Your task to perform on an android device: What's on my calendar today? Image 0: 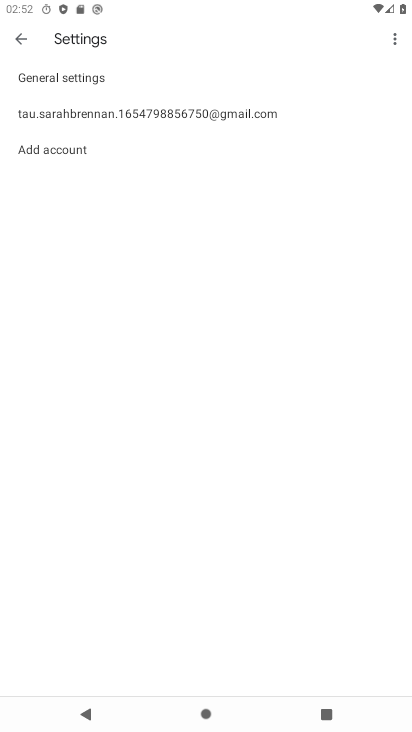
Step 0: press home button
Your task to perform on an android device: What's on my calendar today? Image 1: 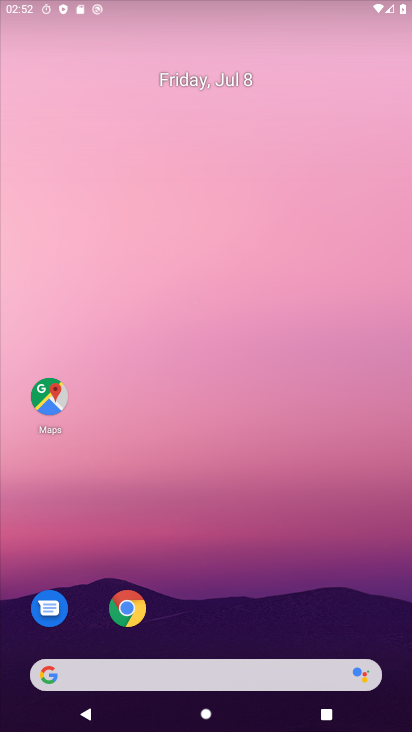
Step 1: drag from (256, 566) to (273, 100)
Your task to perform on an android device: What's on my calendar today? Image 2: 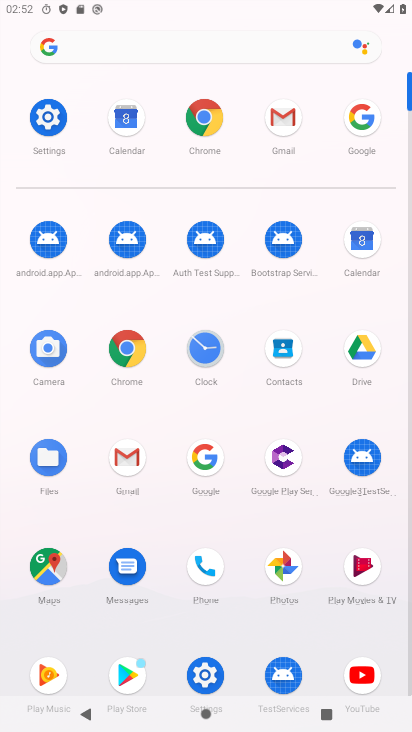
Step 2: click (364, 246)
Your task to perform on an android device: What's on my calendar today? Image 3: 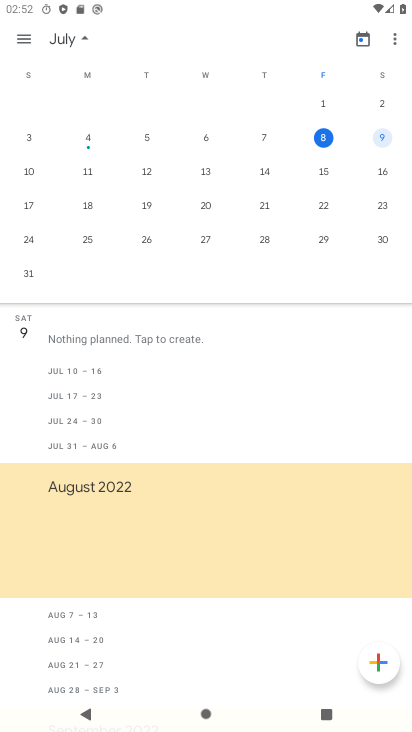
Step 3: click (321, 134)
Your task to perform on an android device: What's on my calendar today? Image 4: 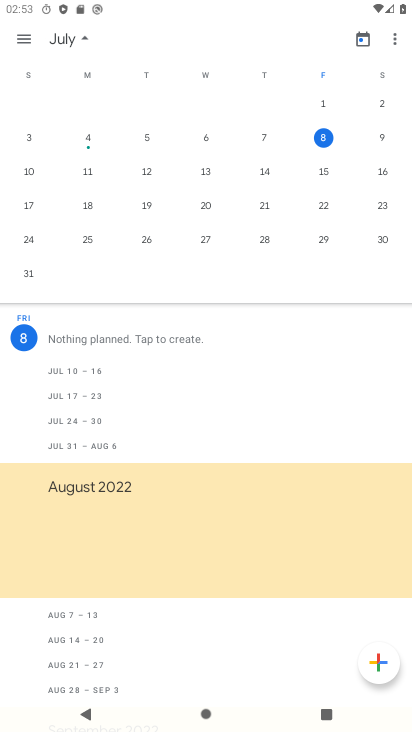
Step 4: task complete